Your task to perform on an android device: delete location history Image 0: 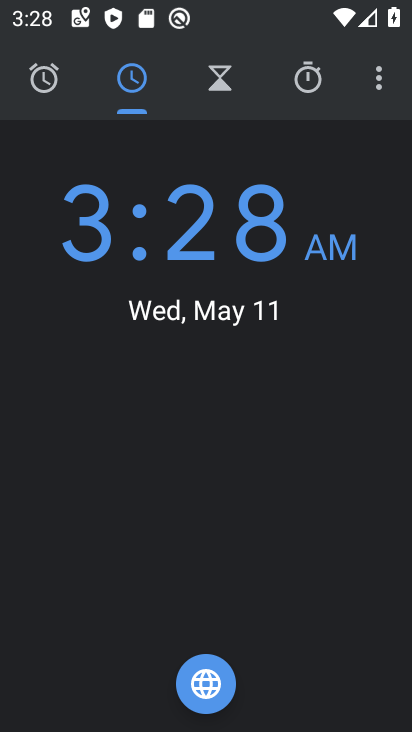
Step 0: press home button
Your task to perform on an android device: delete location history Image 1: 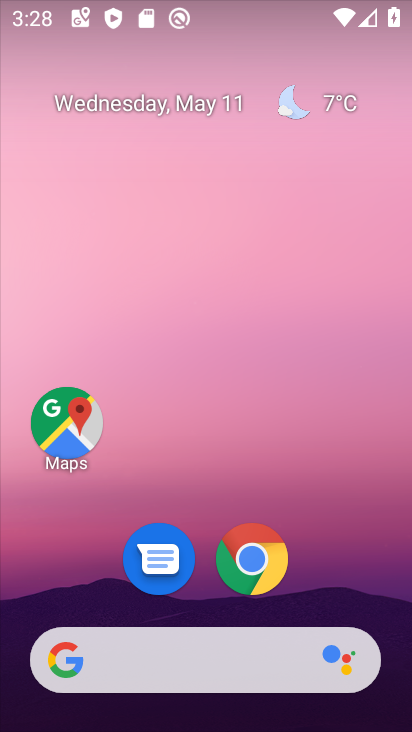
Step 1: drag from (109, 621) to (132, 181)
Your task to perform on an android device: delete location history Image 2: 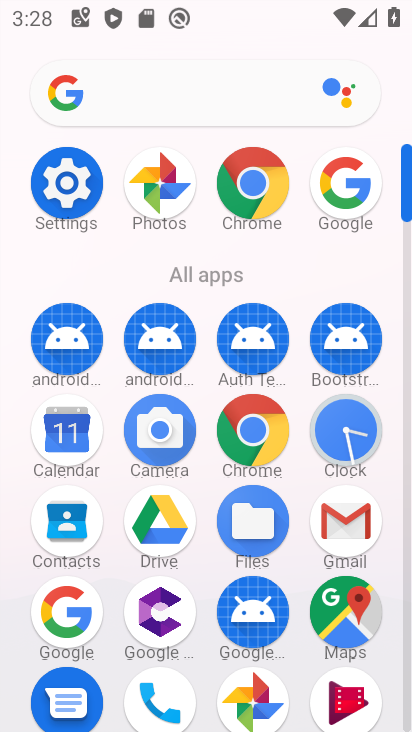
Step 2: click (81, 186)
Your task to perform on an android device: delete location history Image 3: 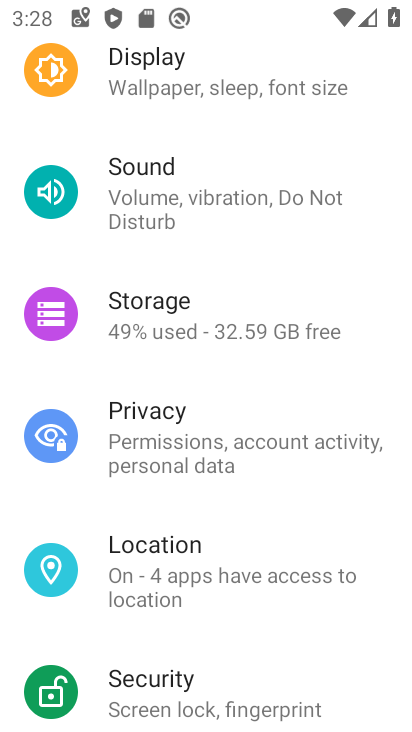
Step 3: click (196, 577)
Your task to perform on an android device: delete location history Image 4: 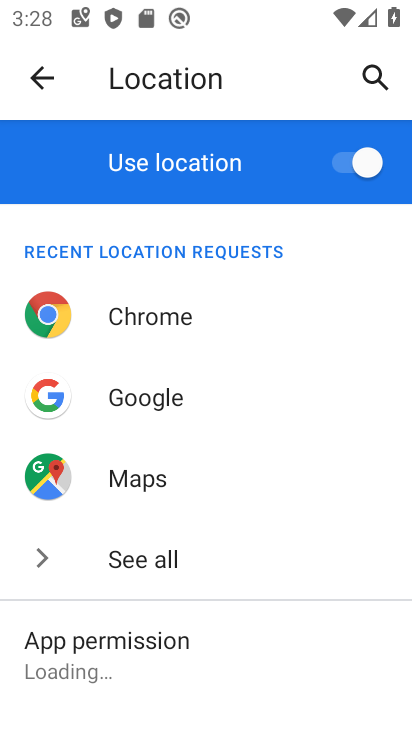
Step 4: drag from (103, 695) to (75, 234)
Your task to perform on an android device: delete location history Image 5: 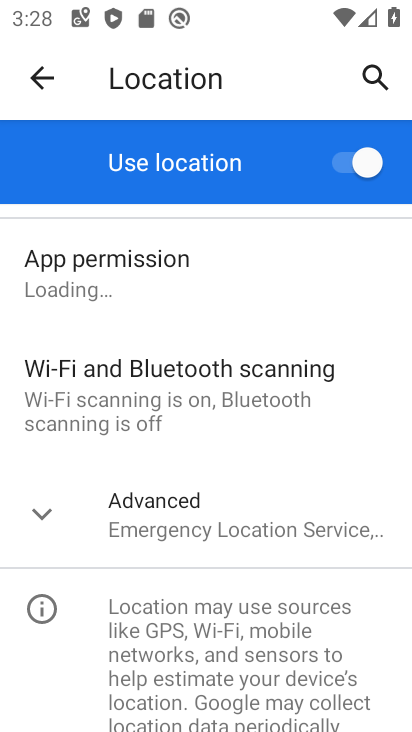
Step 5: click (95, 528)
Your task to perform on an android device: delete location history Image 6: 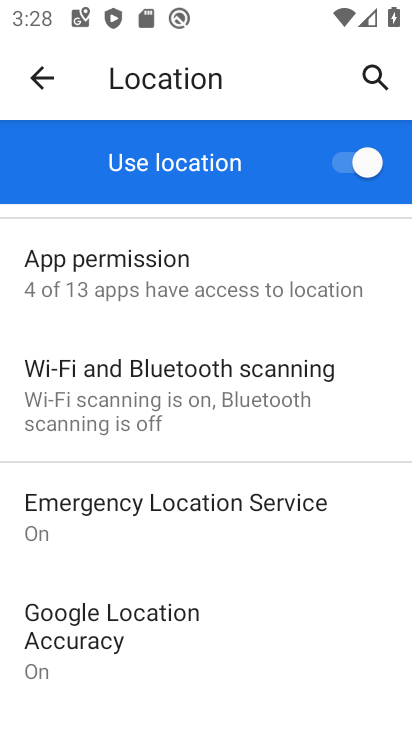
Step 6: drag from (102, 682) to (108, 356)
Your task to perform on an android device: delete location history Image 7: 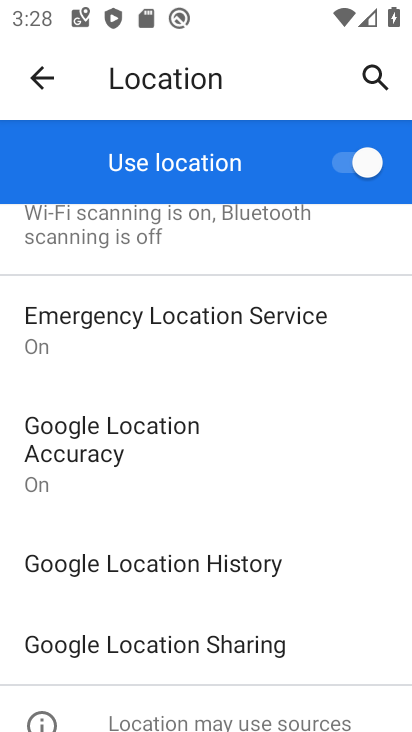
Step 7: click (127, 566)
Your task to perform on an android device: delete location history Image 8: 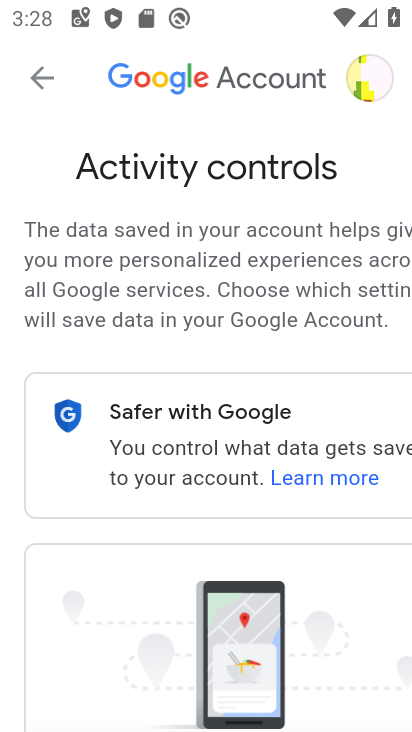
Step 8: drag from (121, 629) to (122, 183)
Your task to perform on an android device: delete location history Image 9: 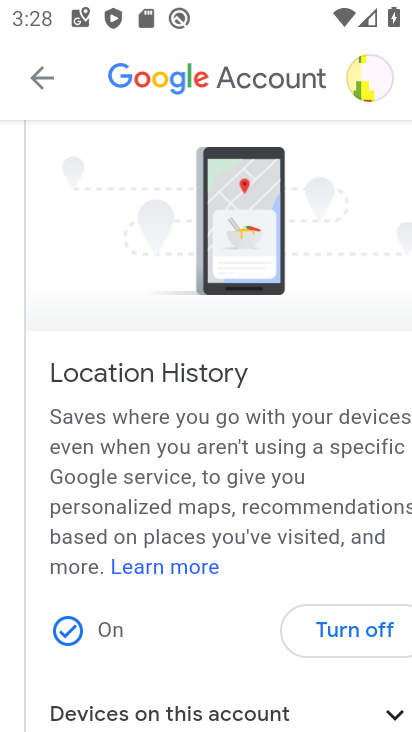
Step 9: drag from (201, 664) to (199, 274)
Your task to perform on an android device: delete location history Image 10: 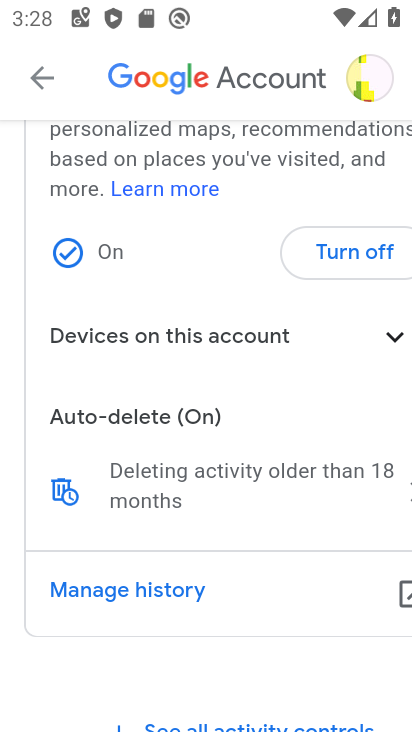
Step 10: click (147, 493)
Your task to perform on an android device: delete location history Image 11: 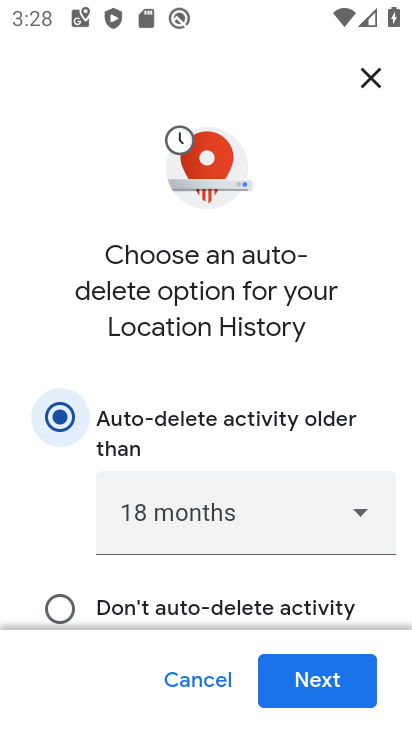
Step 11: click (320, 669)
Your task to perform on an android device: delete location history Image 12: 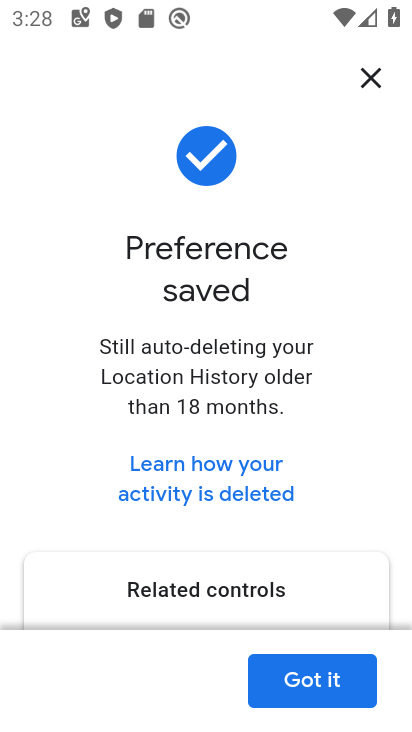
Step 12: click (317, 692)
Your task to perform on an android device: delete location history Image 13: 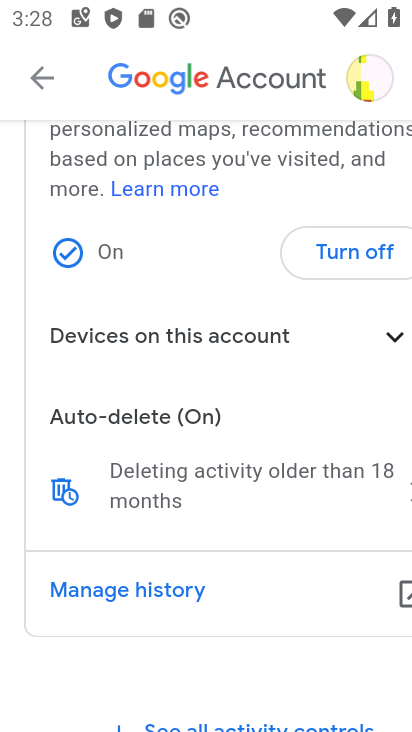
Step 13: task complete